Your task to perform on an android device: check out phone information Image 0: 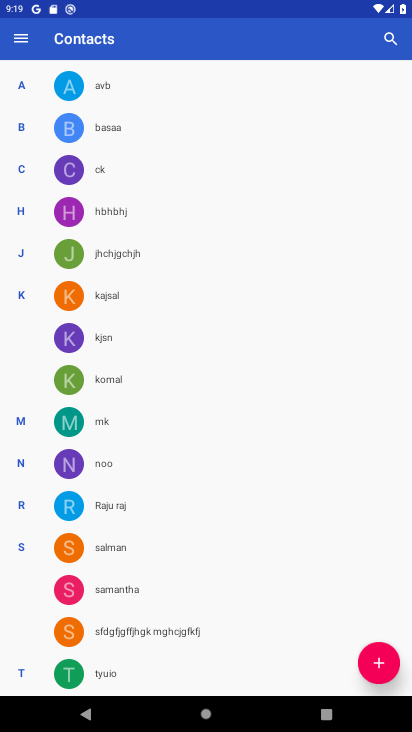
Step 0: press home button
Your task to perform on an android device: check out phone information Image 1: 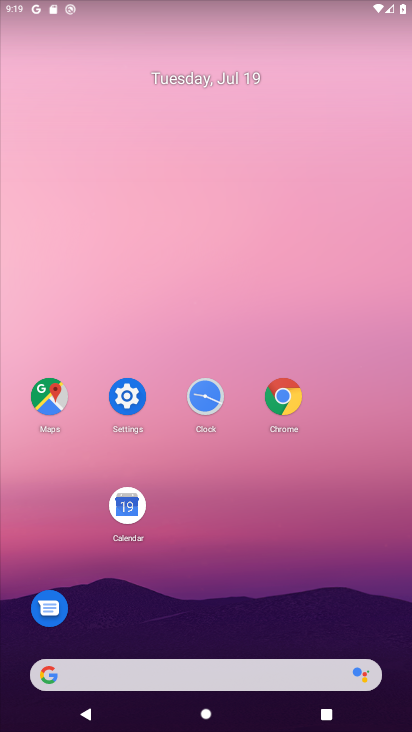
Step 1: click (119, 399)
Your task to perform on an android device: check out phone information Image 2: 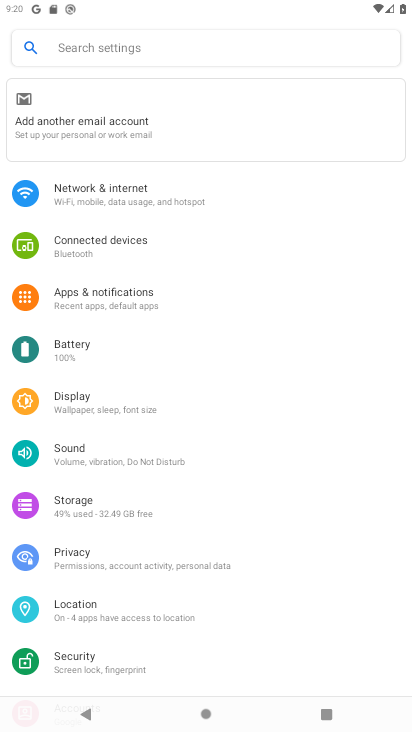
Step 2: drag from (139, 651) to (73, 179)
Your task to perform on an android device: check out phone information Image 3: 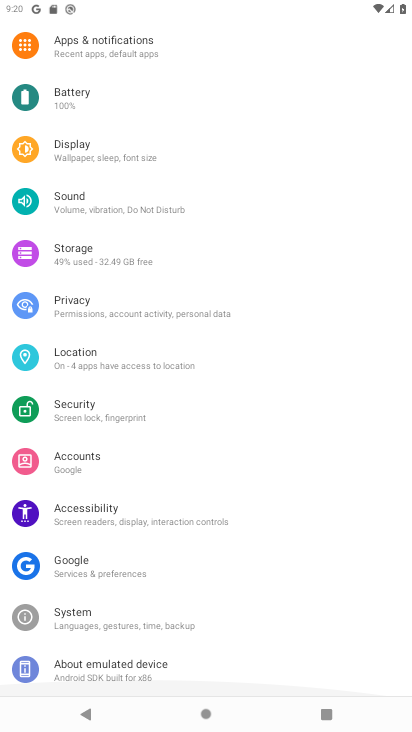
Step 3: drag from (296, 630) to (266, 117)
Your task to perform on an android device: check out phone information Image 4: 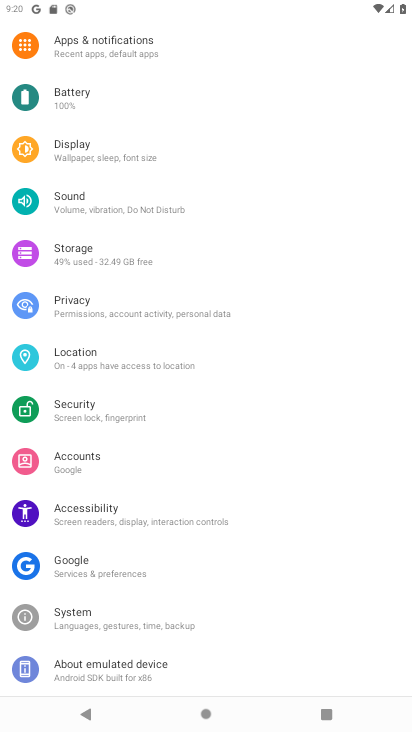
Step 4: click (113, 669)
Your task to perform on an android device: check out phone information Image 5: 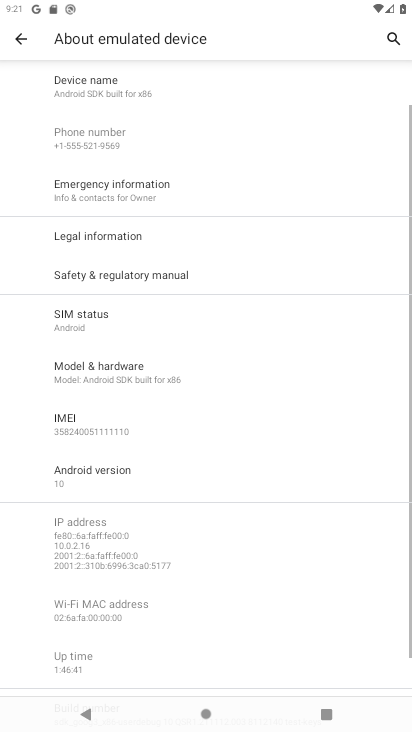
Step 5: task complete